Your task to perform on an android device: Search for jbl charge 4 on costco.com, select the first entry, add it to the cart, then select checkout. Image 0: 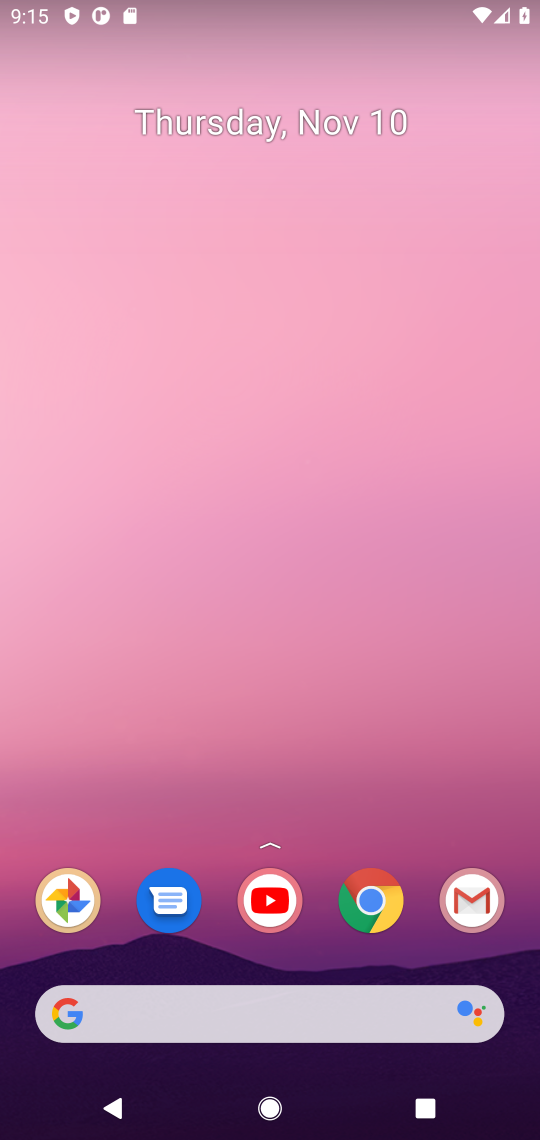
Step 0: click (381, 898)
Your task to perform on an android device: Search for jbl charge 4 on costco.com, select the first entry, add it to the cart, then select checkout. Image 1: 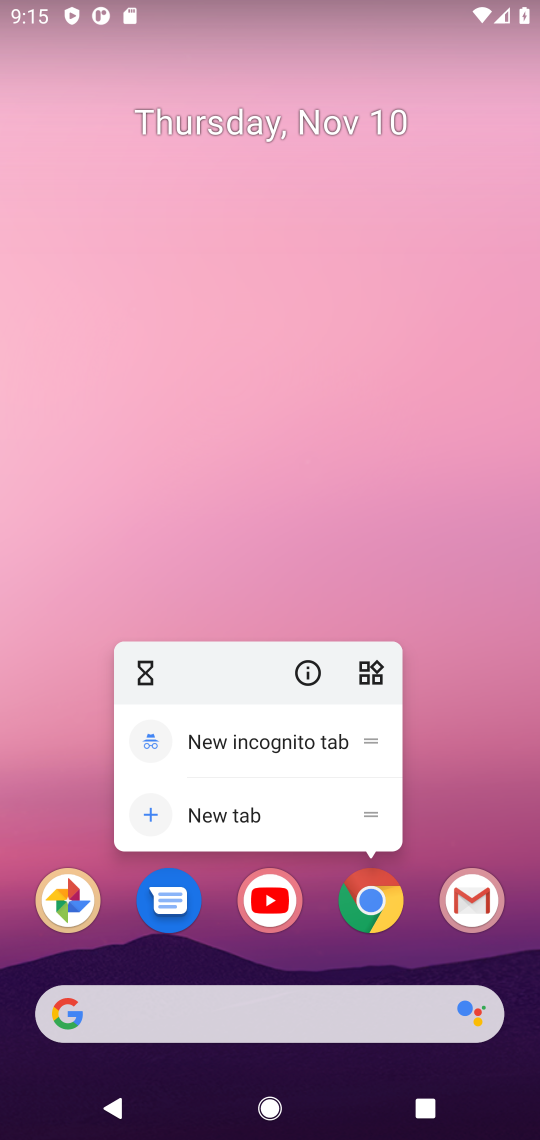
Step 1: click (376, 897)
Your task to perform on an android device: Search for jbl charge 4 on costco.com, select the first entry, add it to the cart, then select checkout. Image 2: 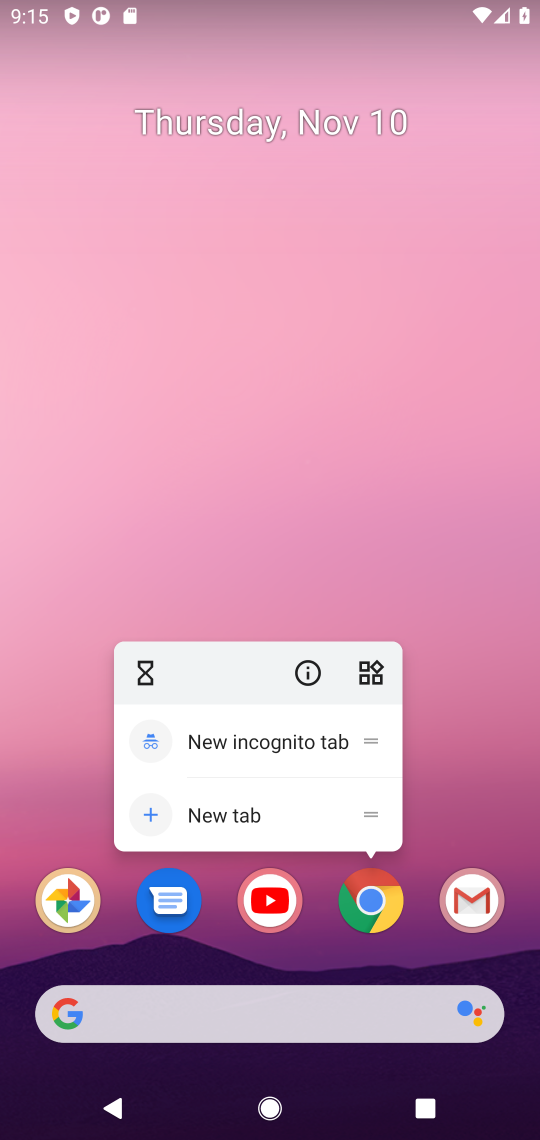
Step 2: click (358, 903)
Your task to perform on an android device: Search for jbl charge 4 on costco.com, select the first entry, add it to the cart, then select checkout. Image 3: 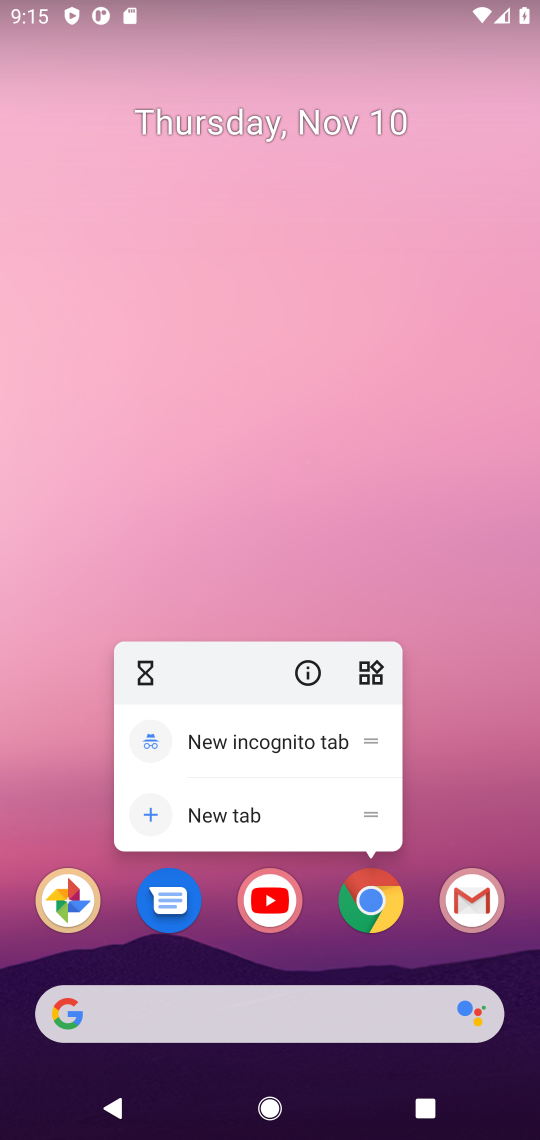
Step 3: click (366, 907)
Your task to perform on an android device: Search for jbl charge 4 on costco.com, select the first entry, add it to the cart, then select checkout. Image 4: 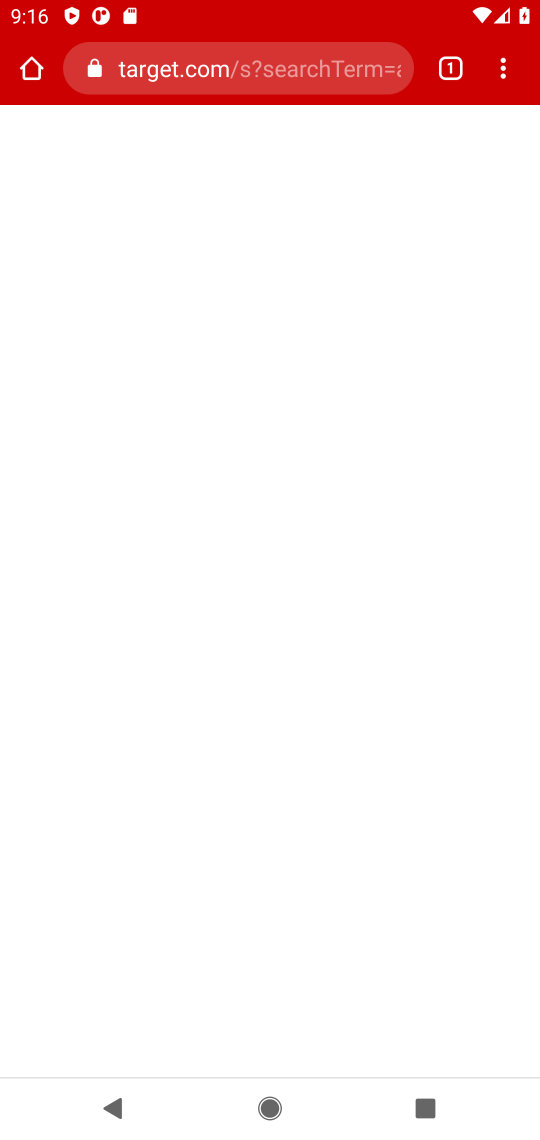
Step 4: click (377, 907)
Your task to perform on an android device: Search for jbl charge 4 on costco.com, select the first entry, add it to the cart, then select checkout. Image 5: 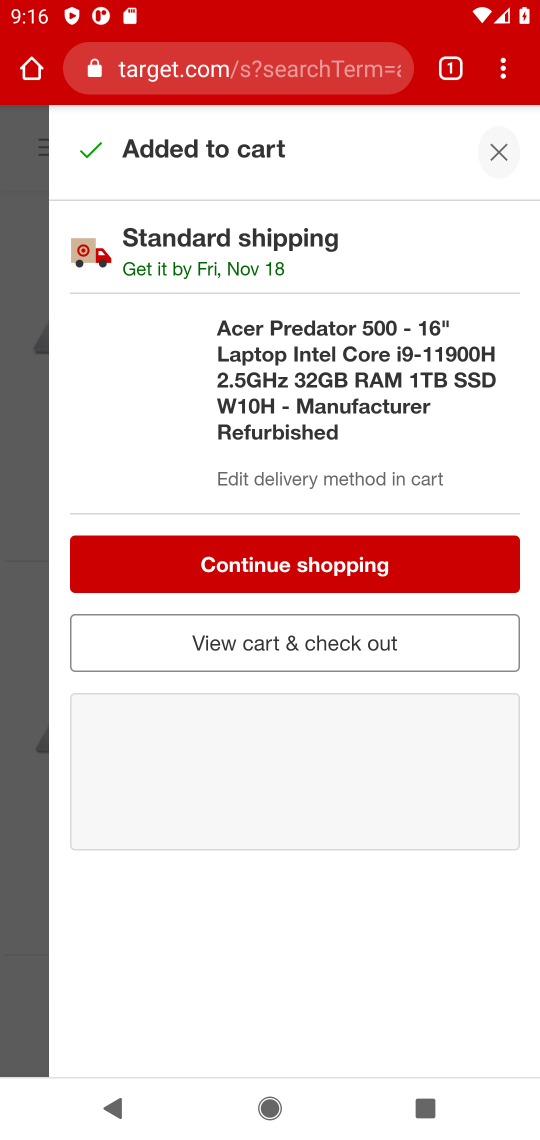
Step 5: click (216, 70)
Your task to perform on an android device: Search for jbl charge 4 on costco.com, select the first entry, add it to the cart, then select checkout. Image 6: 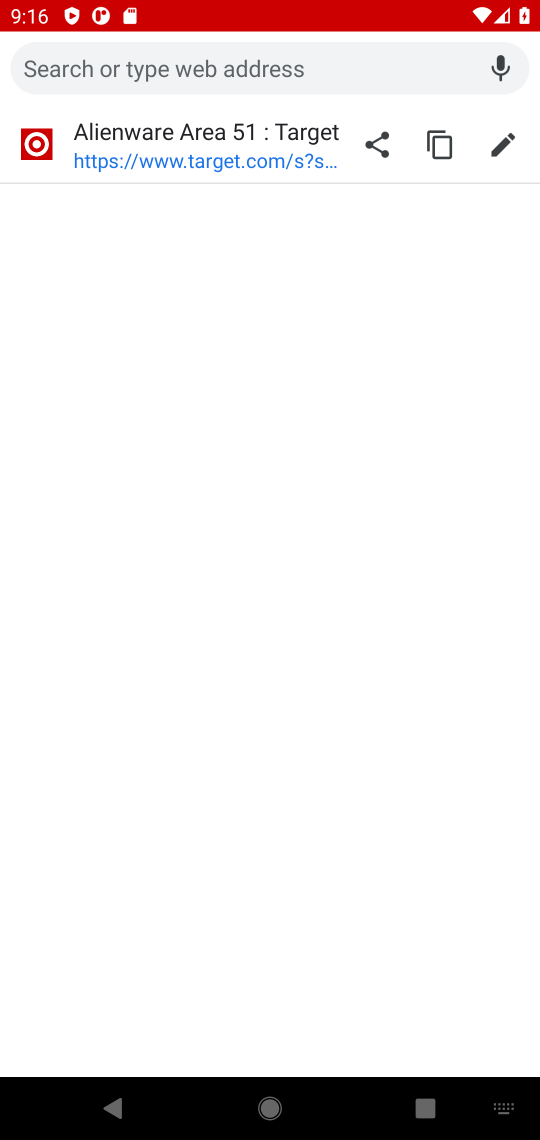
Step 6: click (501, 144)
Your task to perform on an android device: Search for jbl charge 4 on costco.com, select the first entry, add it to the cart, then select checkout. Image 7: 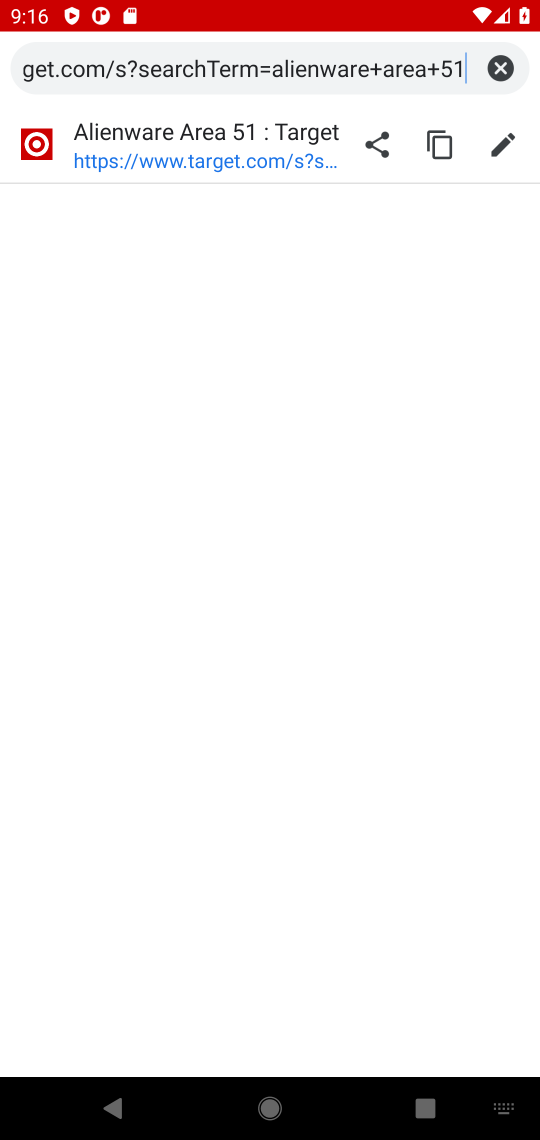
Step 7: click (200, 61)
Your task to perform on an android device: Search for jbl charge 4 on costco.com, select the first entry, add it to the cart, then select checkout. Image 8: 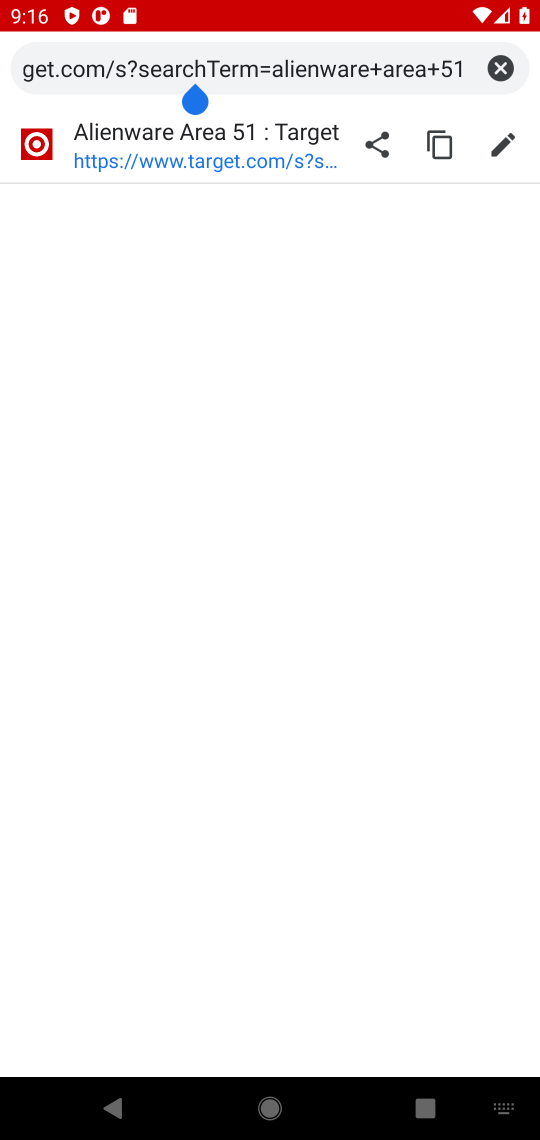
Step 8: click (497, 58)
Your task to perform on an android device: Search for jbl charge 4 on costco.com, select the first entry, add it to the cart, then select checkout. Image 9: 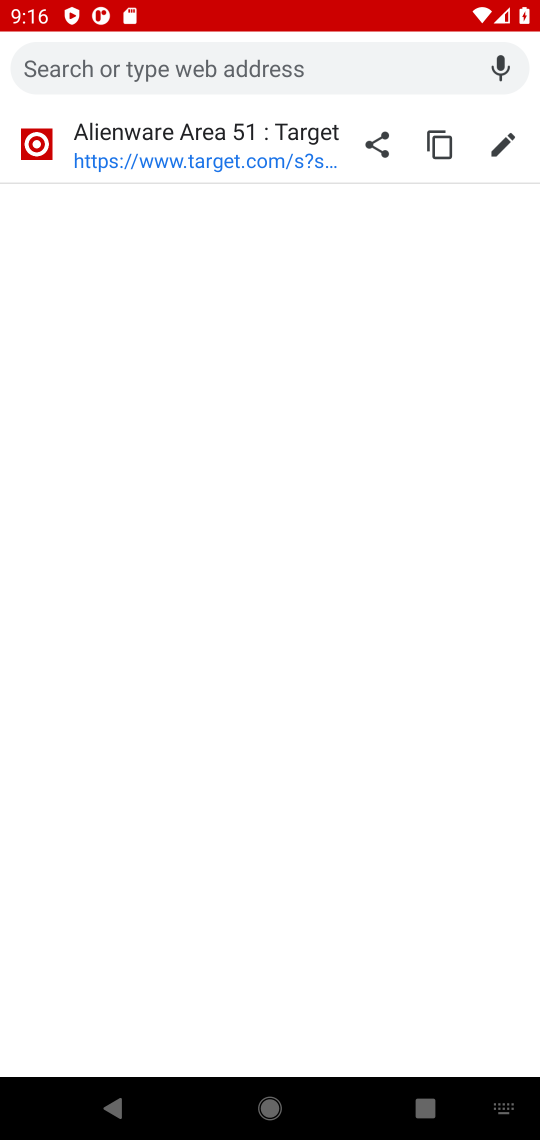
Step 9: click (500, 65)
Your task to perform on an android device: Search for jbl charge 4 on costco.com, select the first entry, add it to the cart, then select checkout. Image 10: 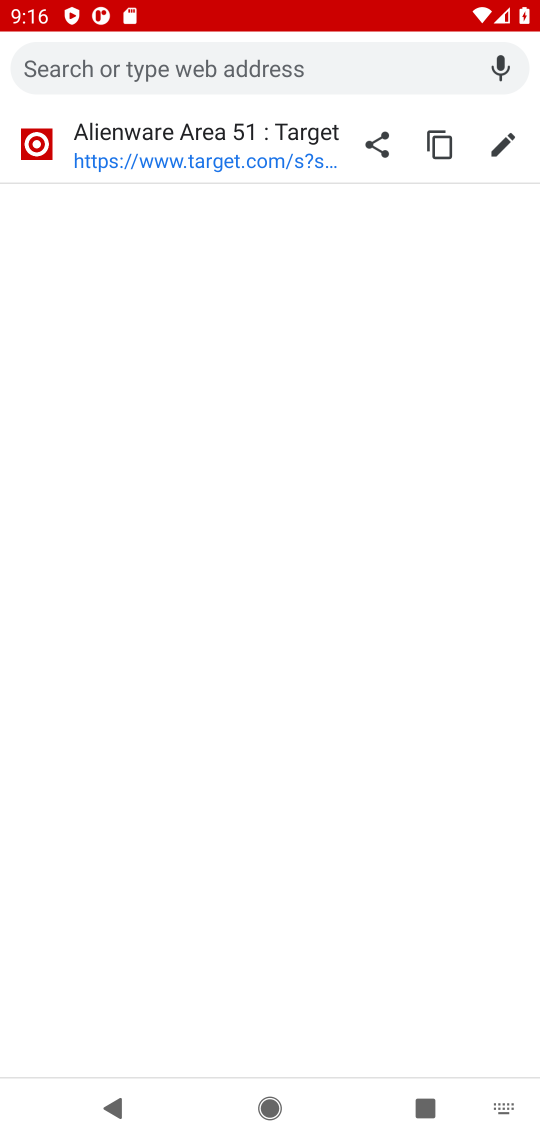
Step 10: click (196, 55)
Your task to perform on an android device: Search for jbl charge 4 on costco.com, select the first entry, add it to the cart, then select checkout. Image 11: 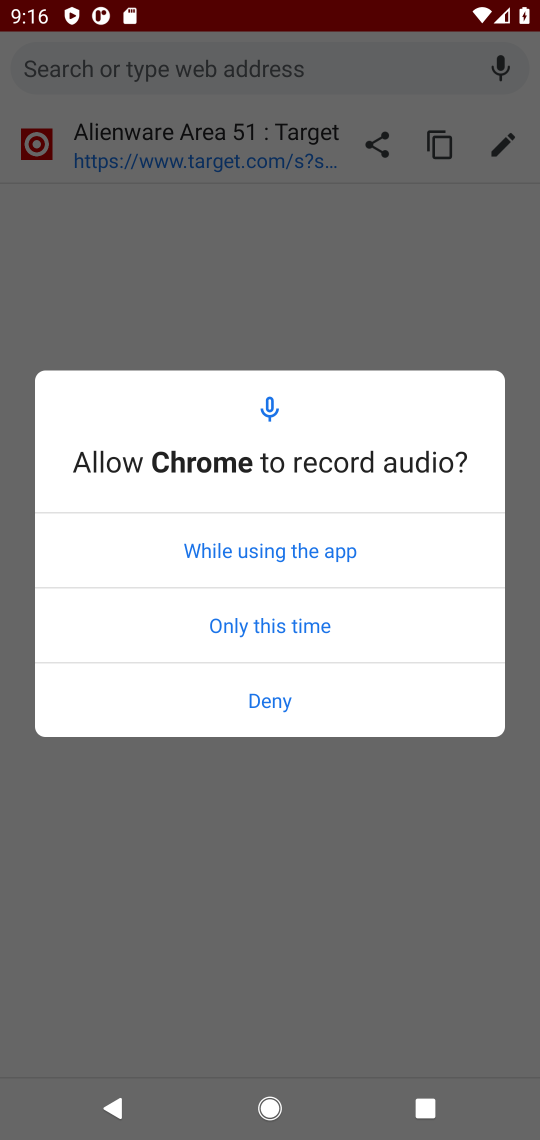
Step 11: click (116, 63)
Your task to perform on an android device: Search for jbl charge 4 on costco.com, select the first entry, add it to the cart, then select checkout. Image 12: 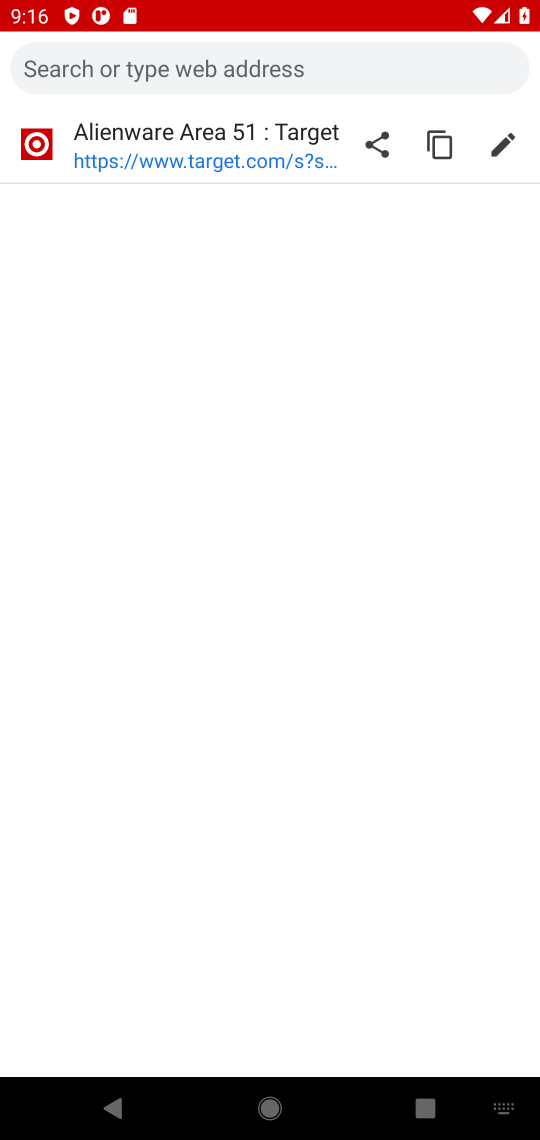
Step 12: type "costco.com"
Your task to perform on an android device: Search for jbl charge 4 on costco.com, select the first entry, add it to the cart, then select checkout. Image 13: 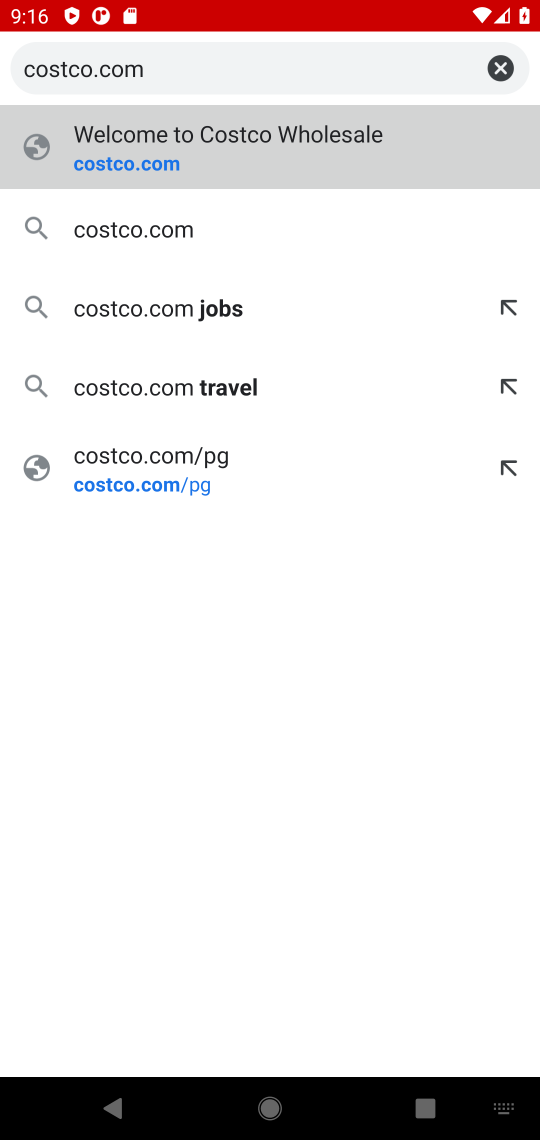
Step 13: press enter
Your task to perform on an android device: Search for jbl charge 4 on costco.com, select the first entry, add it to the cart, then select checkout. Image 14: 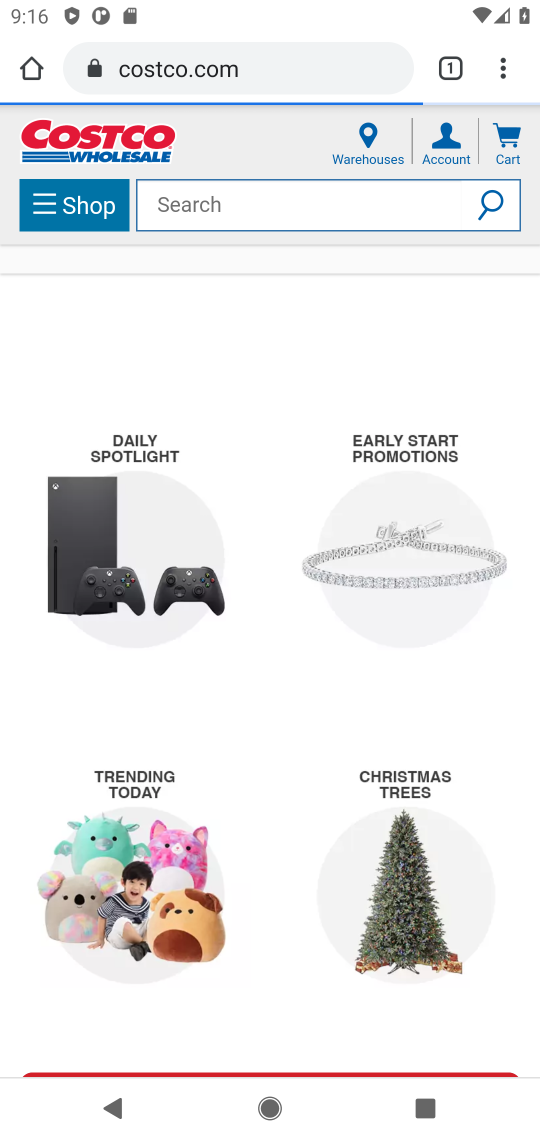
Step 14: click (196, 207)
Your task to perform on an android device: Search for jbl charge 4 on costco.com, select the first entry, add it to the cart, then select checkout. Image 15: 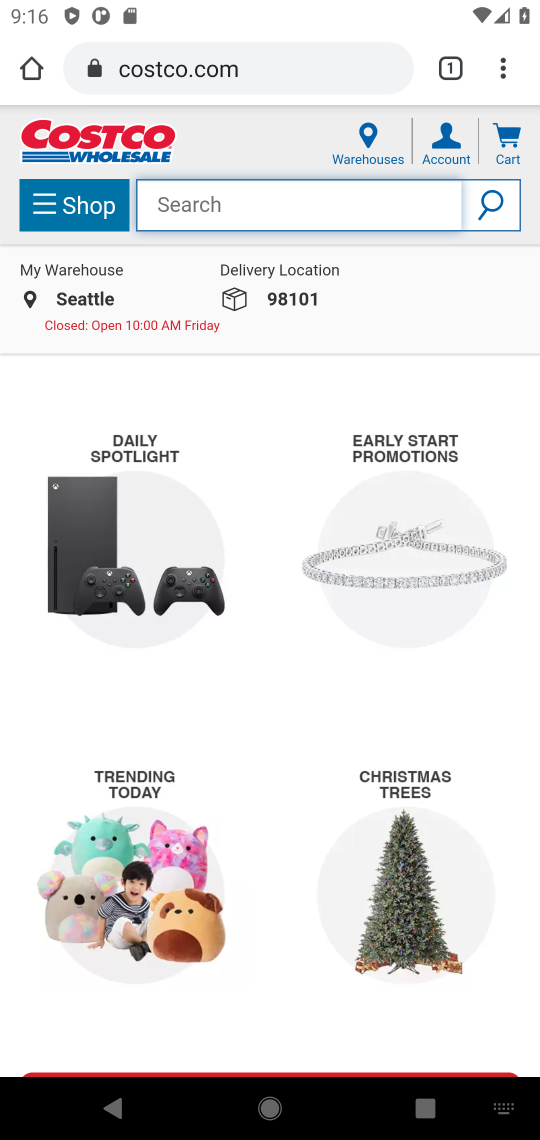
Step 15: type "jbl charge 4"
Your task to perform on an android device: Search for jbl charge 4 on costco.com, select the first entry, add it to the cart, then select checkout. Image 16: 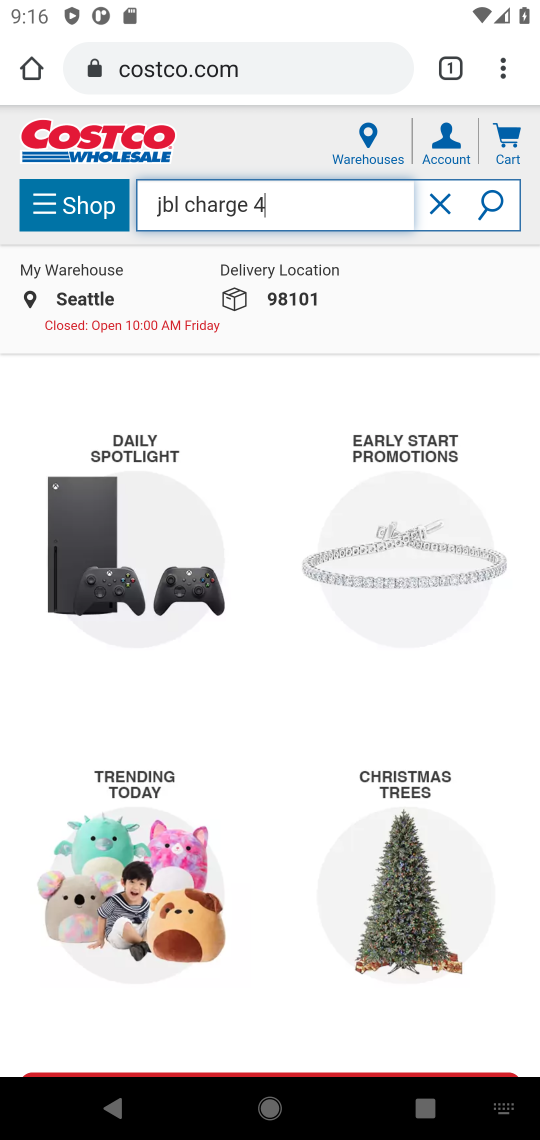
Step 16: press enter
Your task to perform on an android device: Search for jbl charge 4 on costco.com, select the first entry, add it to the cart, then select checkout. Image 17: 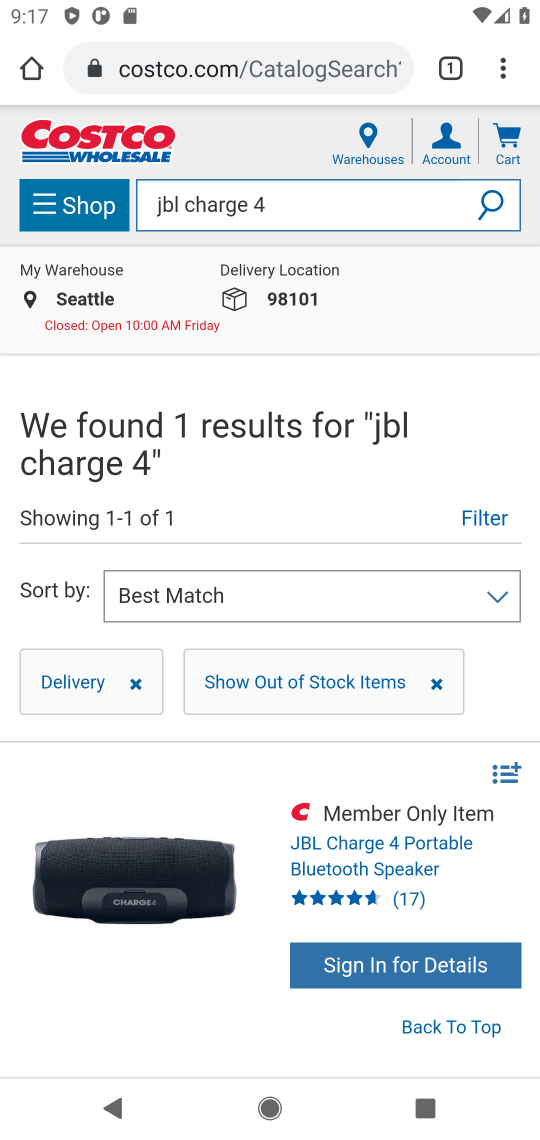
Step 17: drag from (252, 937) to (341, 730)
Your task to perform on an android device: Search for jbl charge 4 on costco.com, select the first entry, add it to the cart, then select checkout. Image 18: 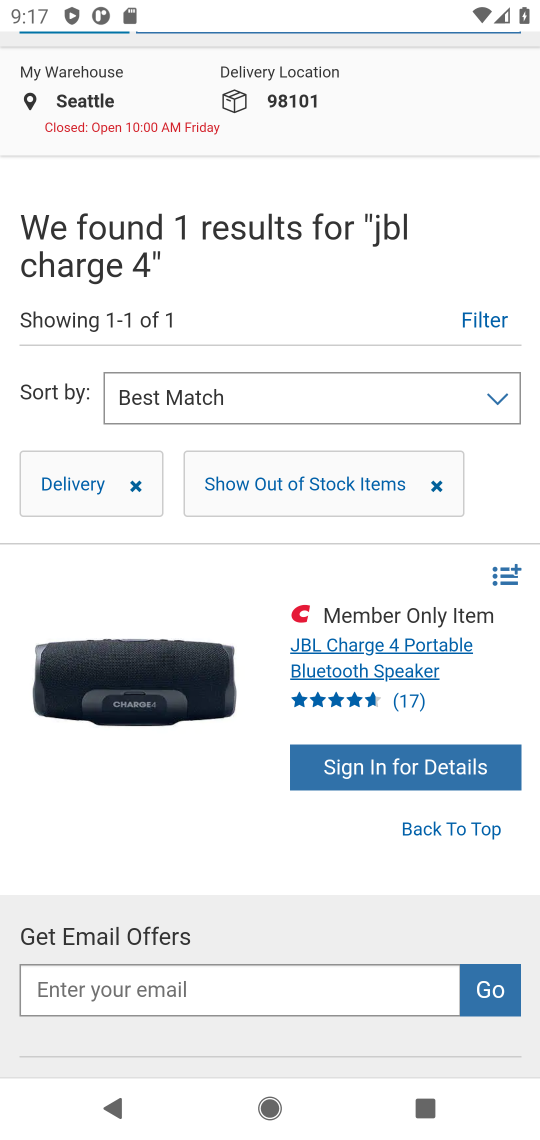
Step 18: click (385, 667)
Your task to perform on an android device: Search for jbl charge 4 on costco.com, select the first entry, add it to the cart, then select checkout. Image 19: 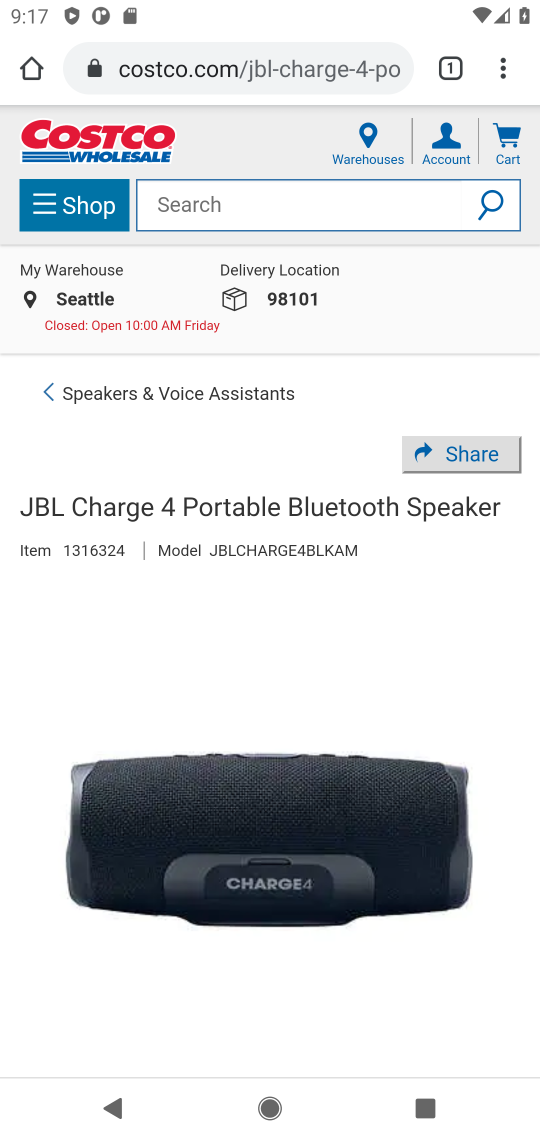
Step 19: task complete